Your task to perform on an android device: Search for vegetarian restaurants on Maps Image 0: 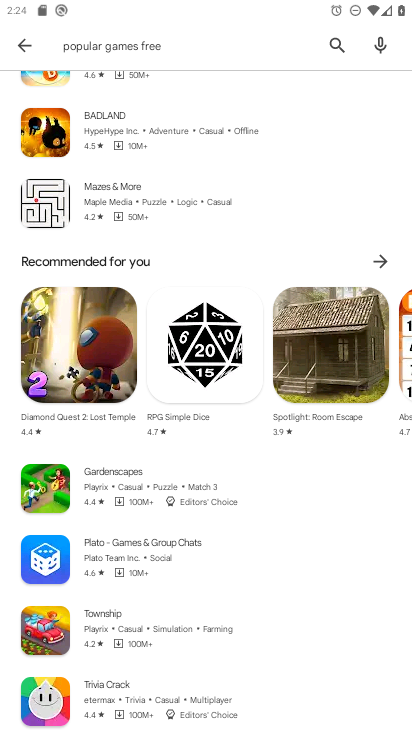
Step 0: press back button
Your task to perform on an android device: Search for vegetarian restaurants on Maps Image 1: 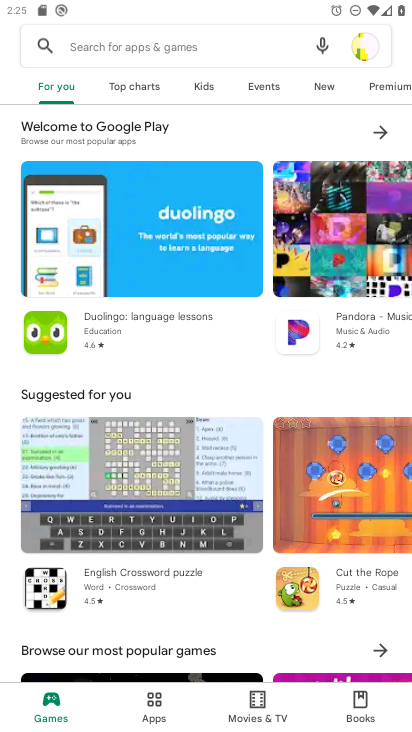
Step 1: press home button
Your task to perform on an android device: Search for vegetarian restaurants on Maps Image 2: 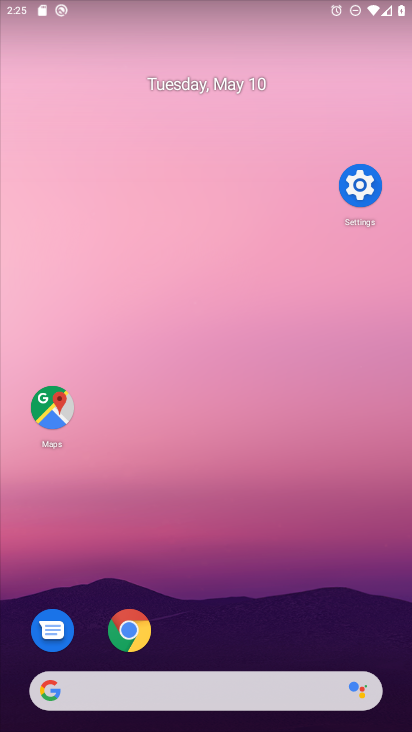
Step 2: drag from (317, 655) to (257, 205)
Your task to perform on an android device: Search for vegetarian restaurants on Maps Image 3: 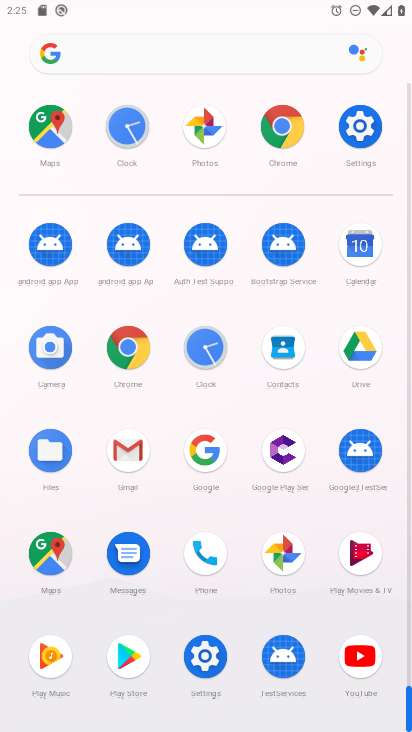
Step 3: click (65, 133)
Your task to perform on an android device: Search for vegetarian restaurants on Maps Image 4: 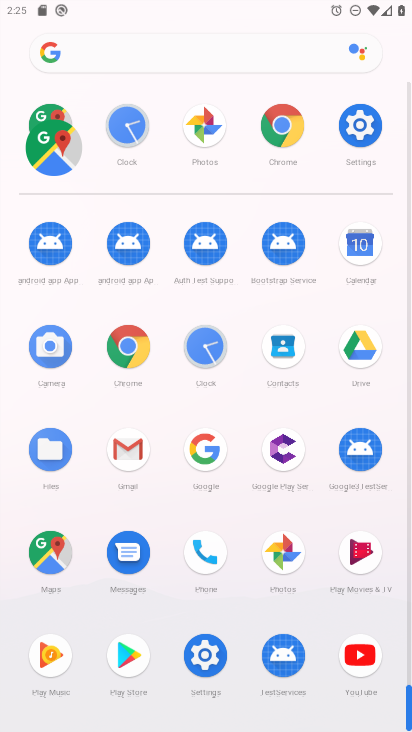
Step 4: click (51, 132)
Your task to perform on an android device: Search for vegetarian restaurants on Maps Image 5: 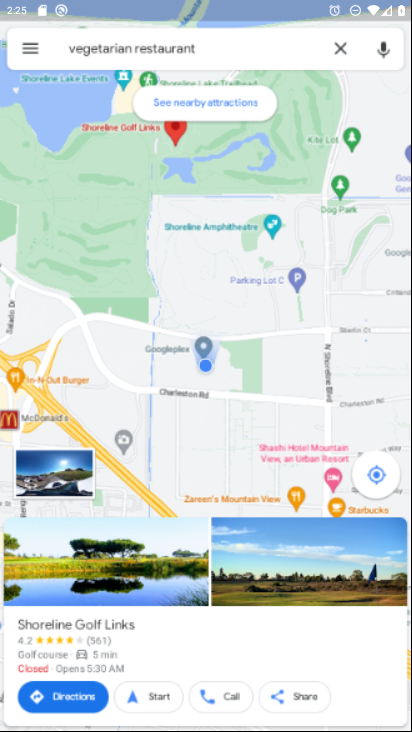
Step 5: click (54, 132)
Your task to perform on an android device: Search for vegetarian restaurants on Maps Image 6: 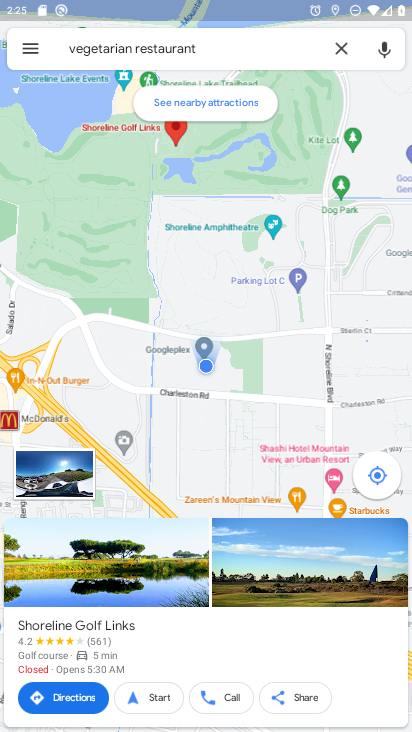
Step 6: task complete